Your task to perform on an android device: Open the stopwatch Image 0: 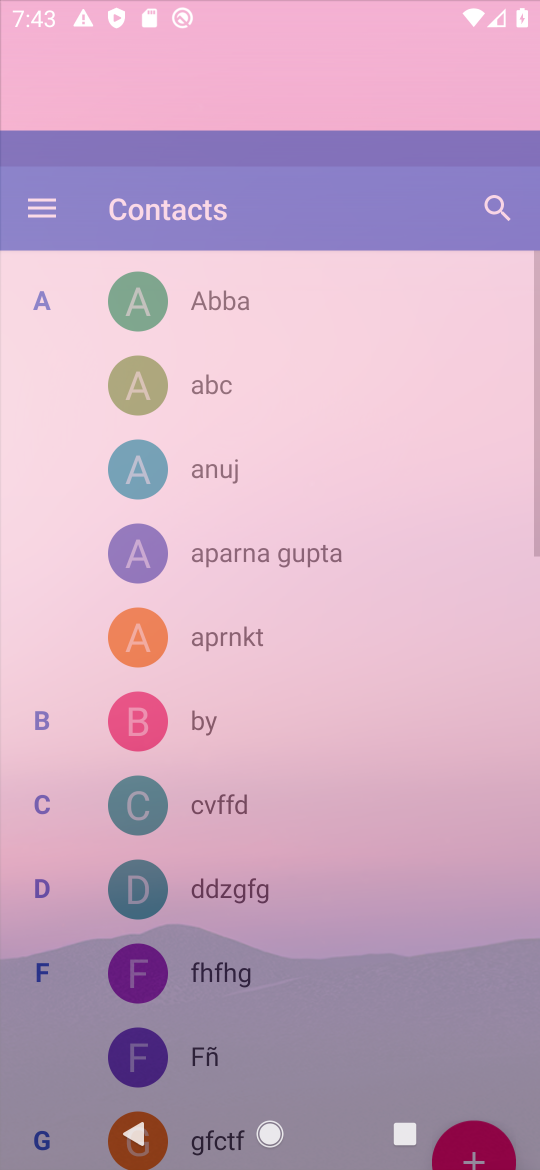
Step 0: press home button
Your task to perform on an android device: Open the stopwatch Image 1: 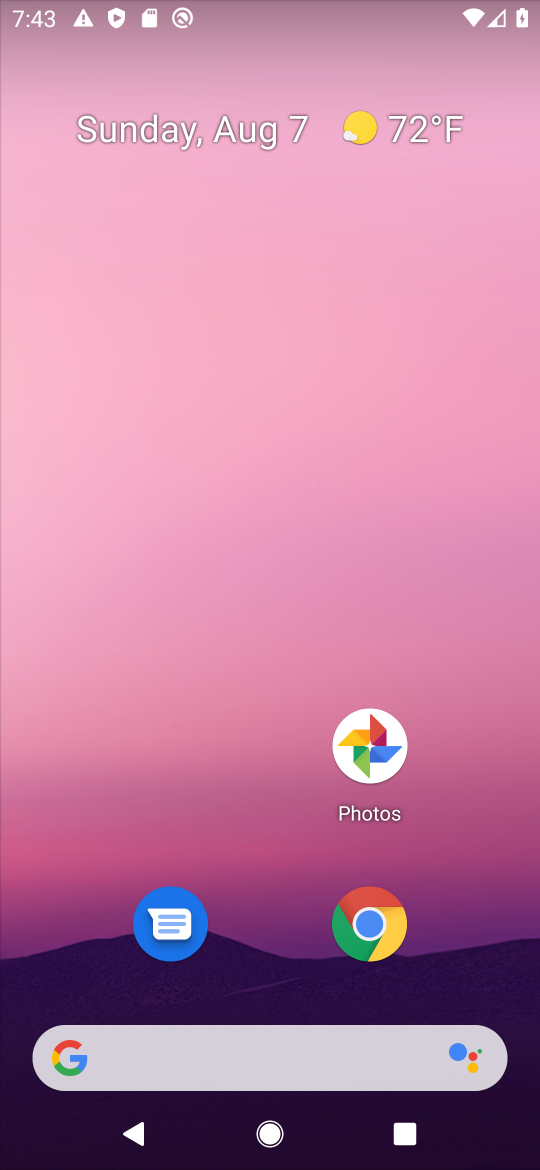
Step 1: drag from (332, 1030) to (243, 136)
Your task to perform on an android device: Open the stopwatch Image 2: 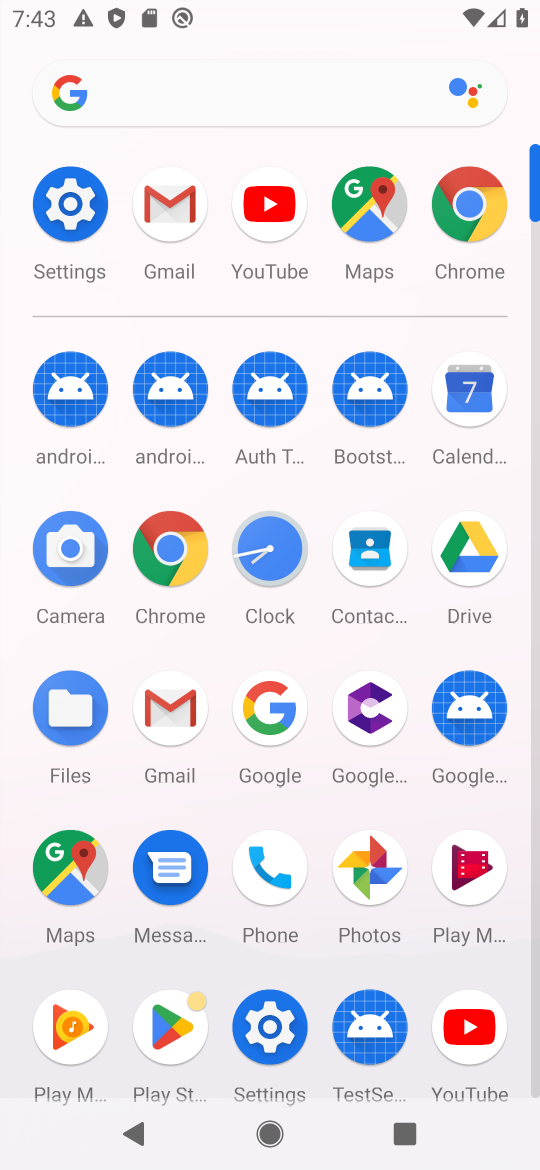
Step 2: click (286, 563)
Your task to perform on an android device: Open the stopwatch Image 3: 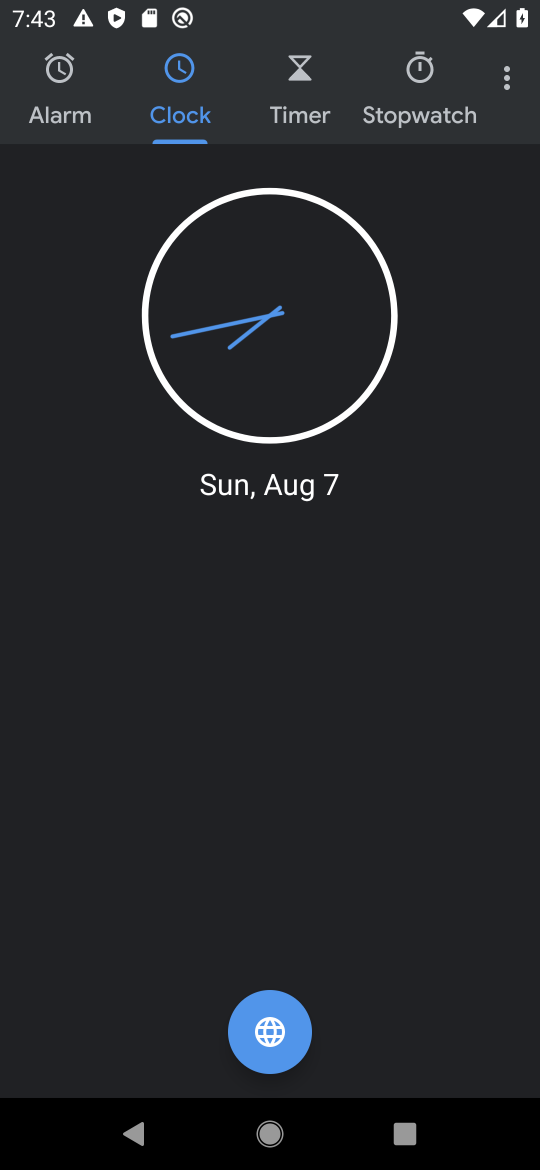
Step 3: click (413, 87)
Your task to perform on an android device: Open the stopwatch Image 4: 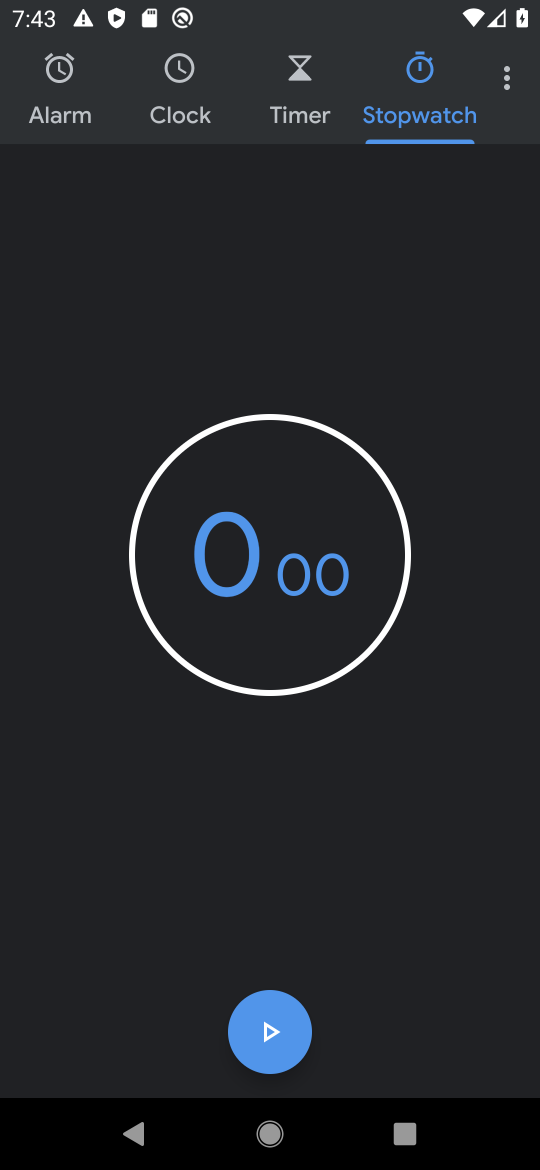
Step 4: click (259, 1012)
Your task to perform on an android device: Open the stopwatch Image 5: 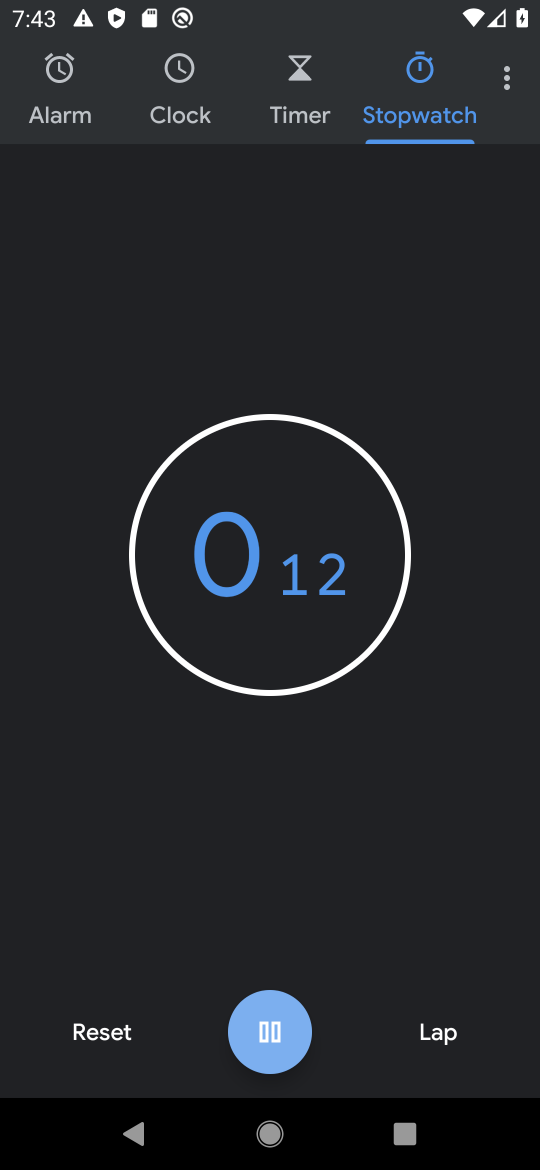
Step 5: click (282, 1052)
Your task to perform on an android device: Open the stopwatch Image 6: 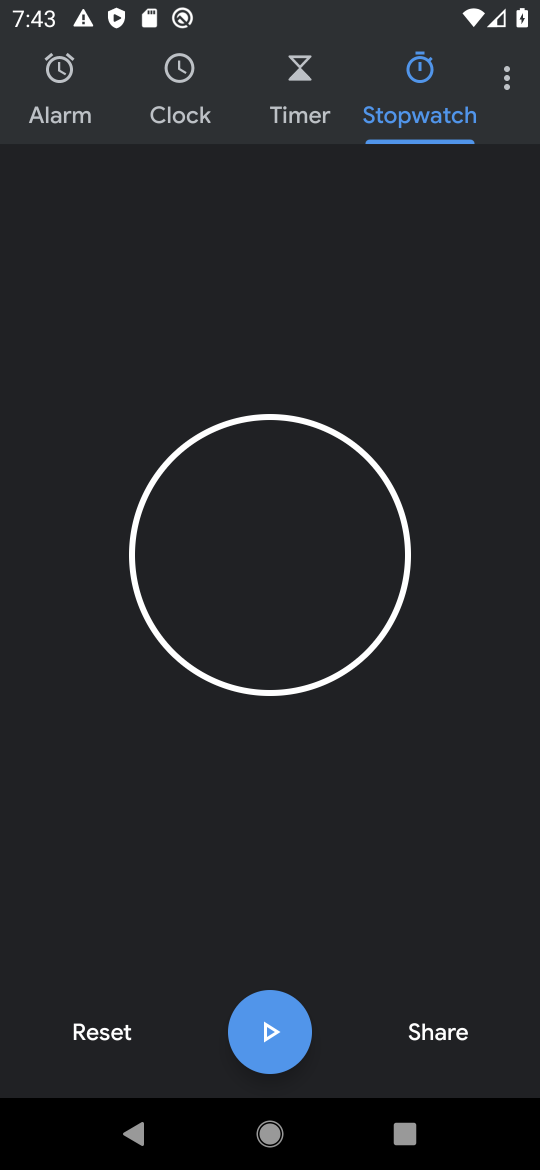
Step 6: task complete